Your task to perform on an android device: Go to accessibility settings Image 0: 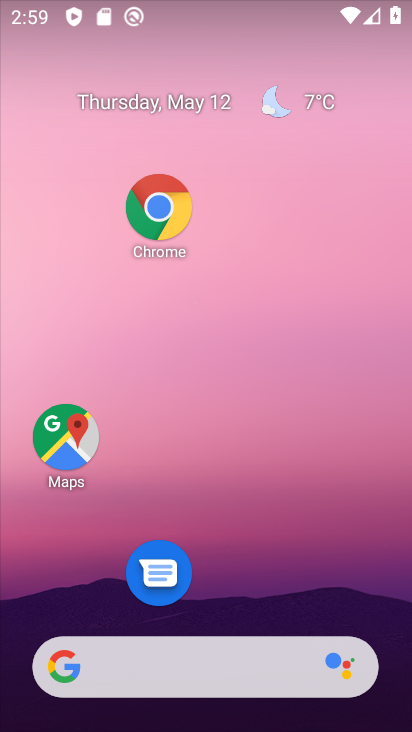
Step 0: drag from (295, 406) to (290, 4)
Your task to perform on an android device: Go to accessibility settings Image 1: 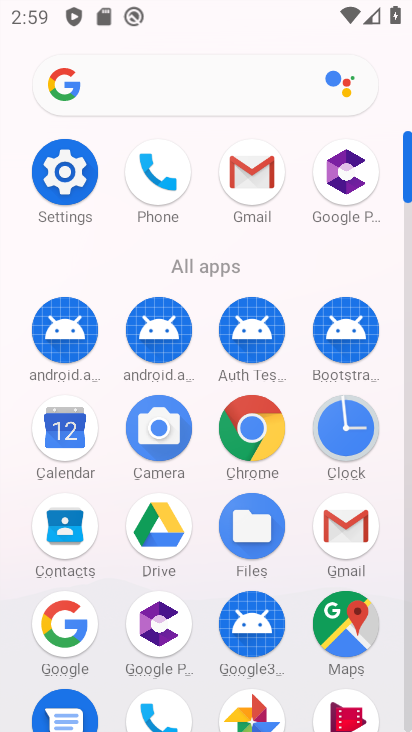
Step 1: click (80, 182)
Your task to perform on an android device: Go to accessibility settings Image 2: 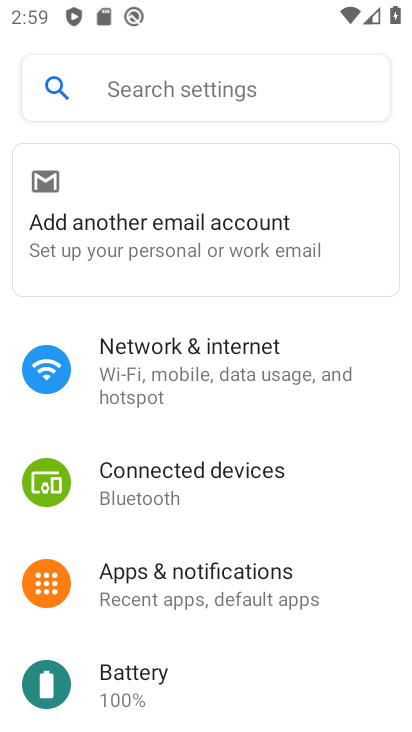
Step 2: drag from (201, 626) to (246, 327)
Your task to perform on an android device: Go to accessibility settings Image 3: 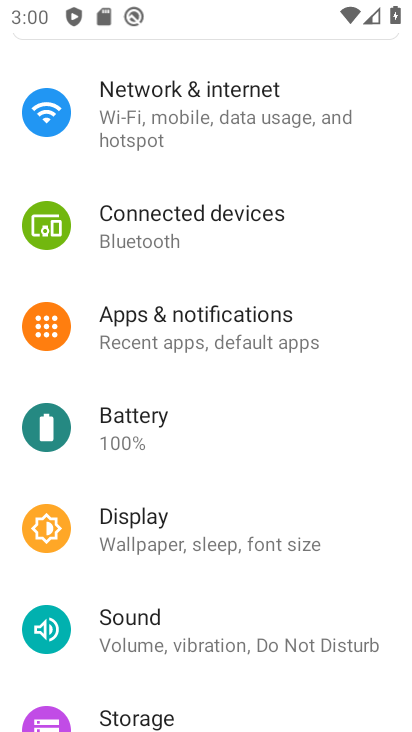
Step 3: drag from (126, 658) to (199, 229)
Your task to perform on an android device: Go to accessibility settings Image 4: 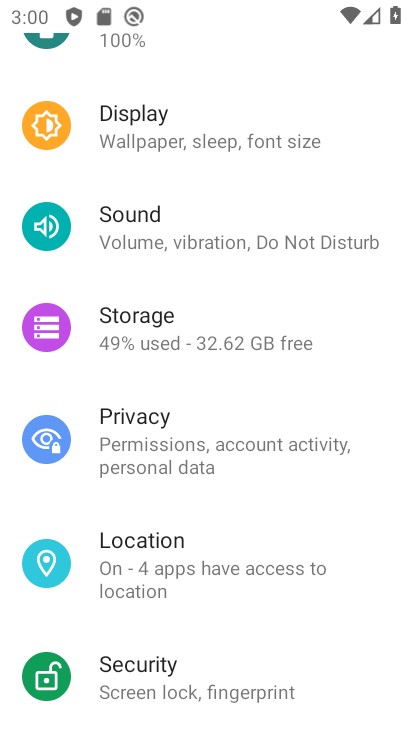
Step 4: drag from (162, 588) to (264, 144)
Your task to perform on an android device: Go to accessibility settings Image 5: 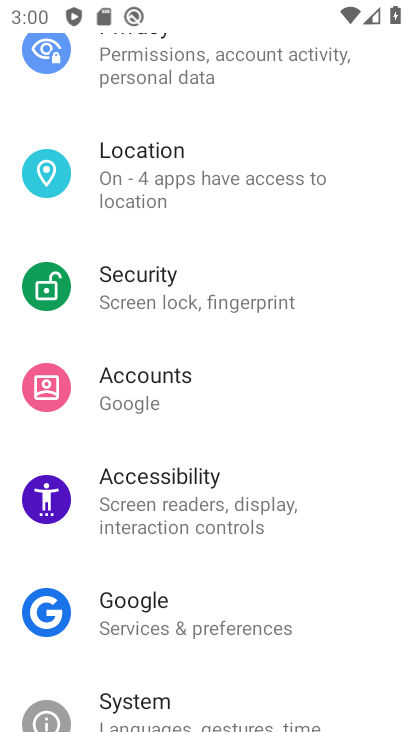
Step 5: click (178, 532)
Your task to perform on an android device: Go to accessibility settings Image 6: 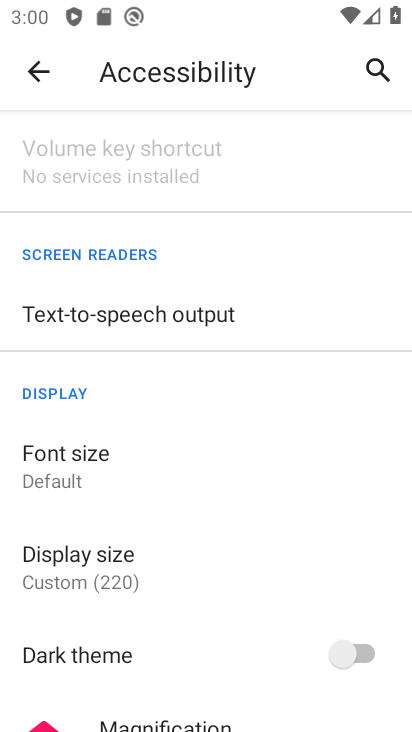
Step 6: task complete